Your task to perform on an android device: turn on translation in the chrome app Image 0: 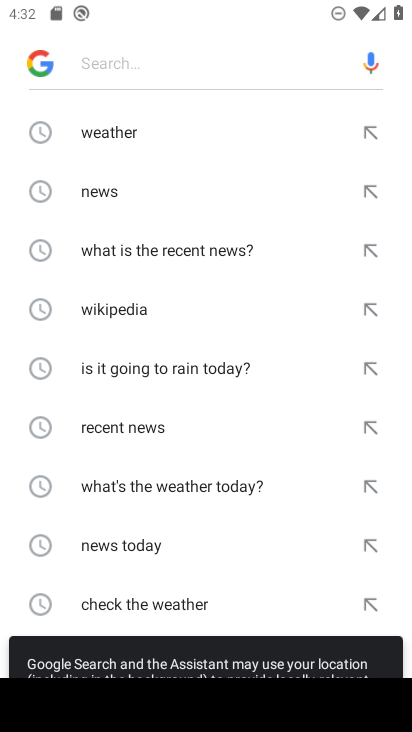
Step 0: press home button
Your task to perform on an android device: turn on translation in the chrome app Image 1: 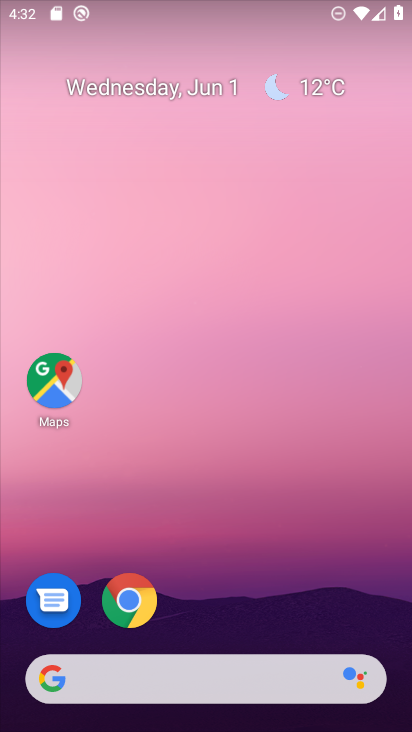
Step 1: click (131, 603)
Your task to perform on an android device: turn on translation in the chrome app Image 2: 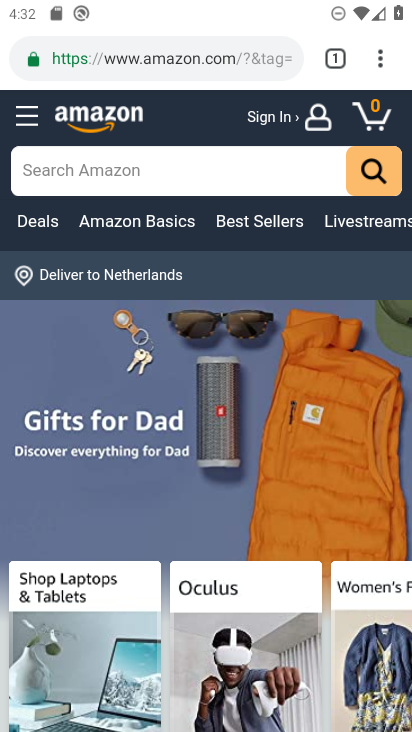
Step 2: click (376, 63)
Your task to perform on an android device: turn on translation in the chrome app Image 3: 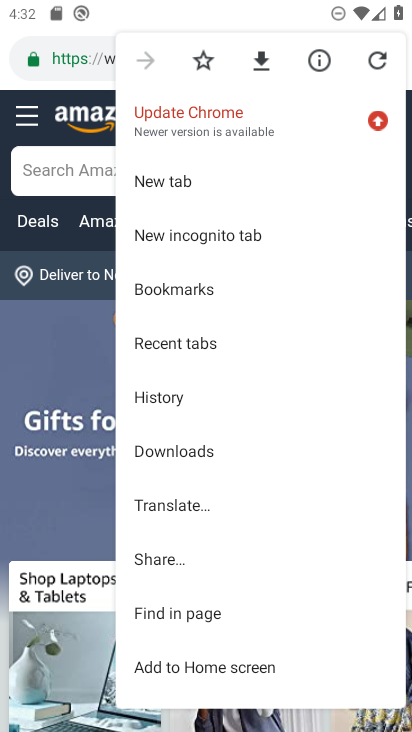
Step 3: drag from (258, 646) to (242, 188)
Your task to perform on an android device: turn on translation in the chrome app Image 4: 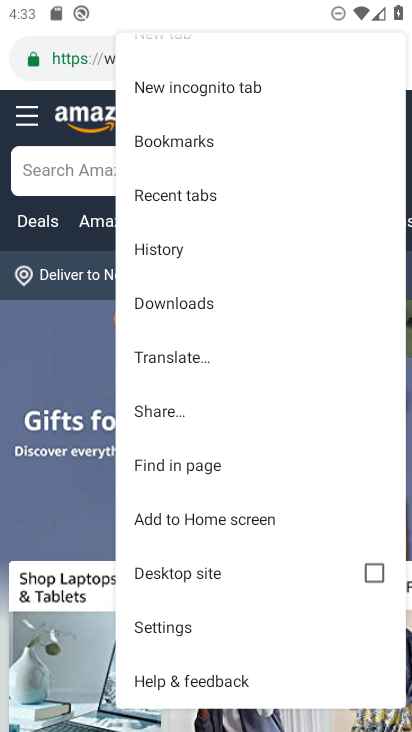
Step 4: click (183, 623)
Your task to perform on an android device: turn on translation in the chrome app Image 5: 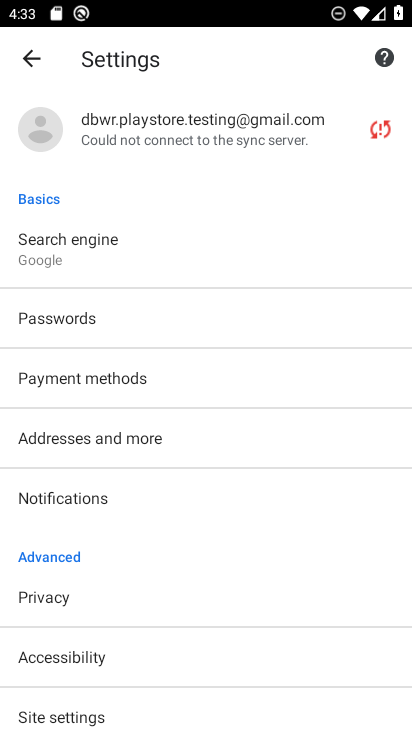
Step 5: drag from (180, 635) to (179, 341)
Your task to perform on an android device: turn on translation in the chrome app Image 6: 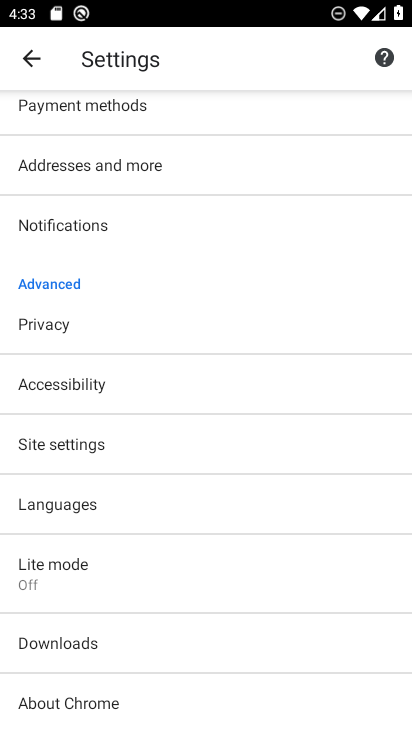
Step 6: click (60, 500)
Your task to perform on an android device: turn on translation in the chrome app Image 7: 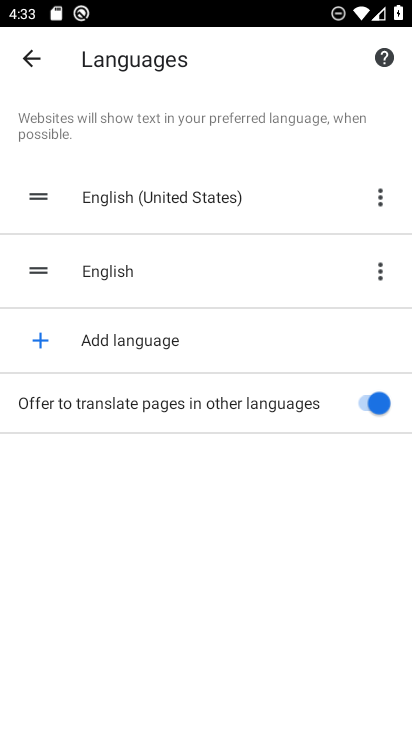
Step 7: task complete